Your task to perform on an android device: Open sound settings Image 0: 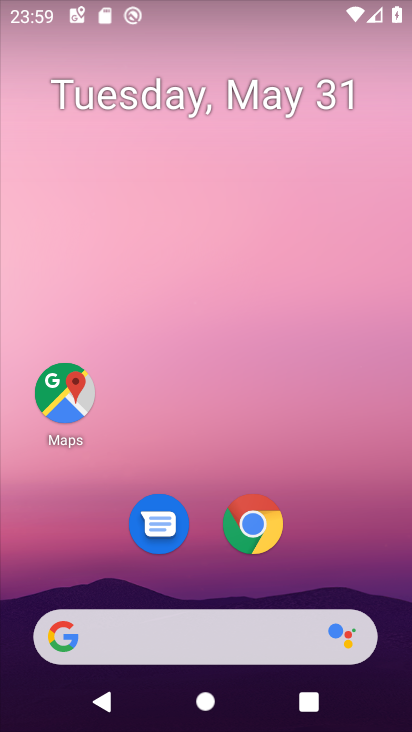
Step 0: drag from (229, 447) to (299, 3)
Your task to perform on an android device: Open sound settings Image 1: 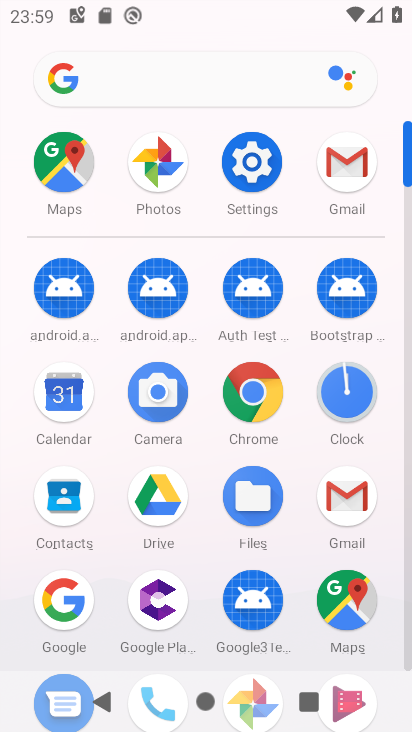
Step 1: click (257, 150)
Your task to perform on an android device: Open sound settings Image 2: 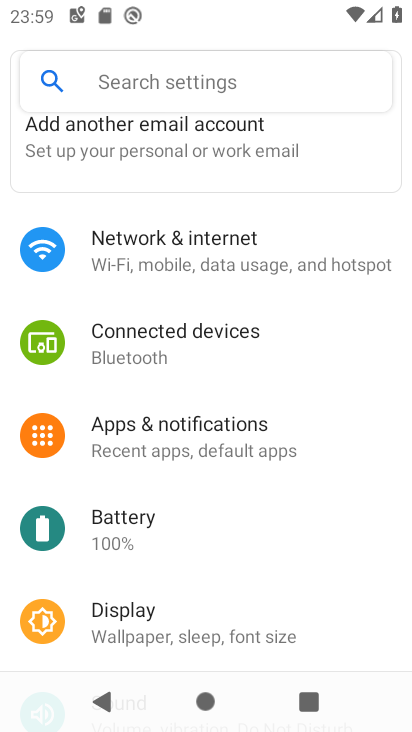
Step 2: drag from (187, 548) to (202, 235)
Your task to perform on an android device: Open sound settings Image 3: 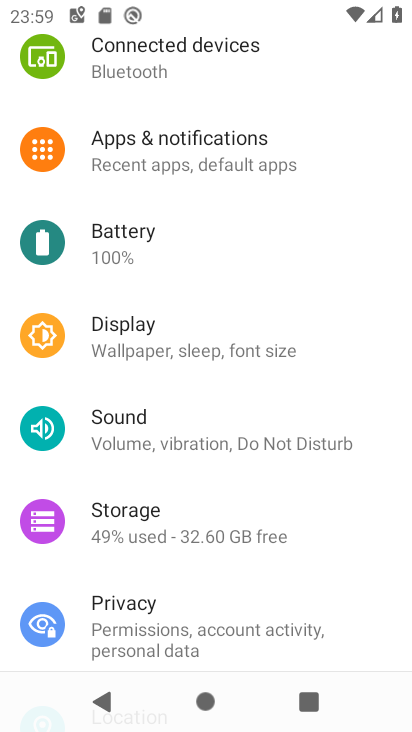
Step 3: click (200, 425)
Your task to perform on an android device: Open sound settings Image 4: 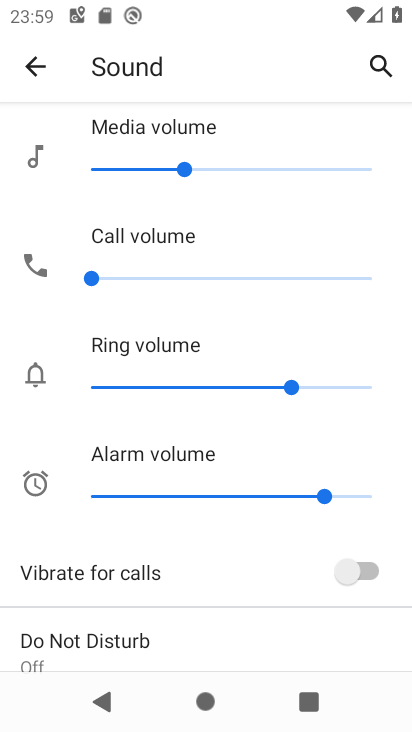
Step 4: task complete